Your task to perform on an android device: allow cookies in the chrome app Image 0: 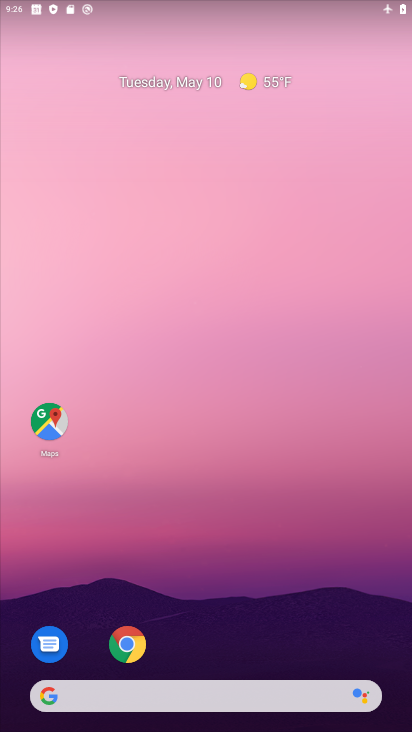
Step 0: drag from (280, 609) to (279, 109)
Your task to perform on an android device: allow cookies in the chrome app Image 1: 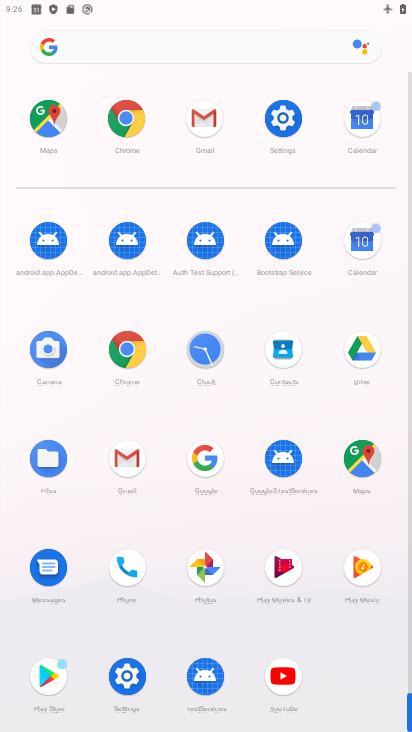
Step 1: click (130, 129)
Your task to perform on an android device: allow cookies in the chrome app Image 2: 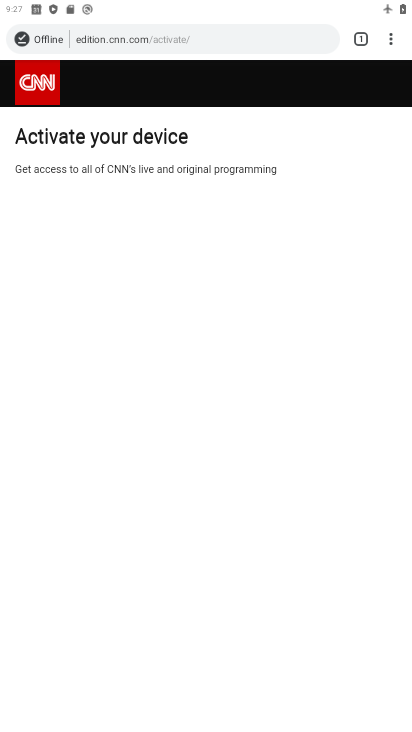
Step 2: click (398, 47)
Your task to perform on an android device: allow cookies in the chrome app Image 3: 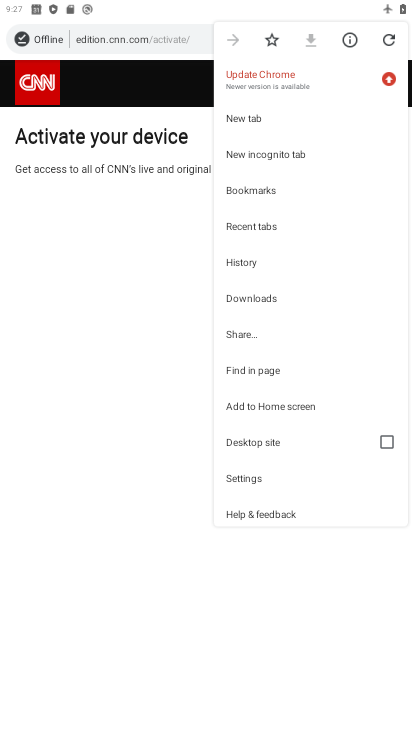
Step 3: drag from (275, 367) to (294, 184)
Your task to perform on an android device: allow cookies in the chrome app Image 4: 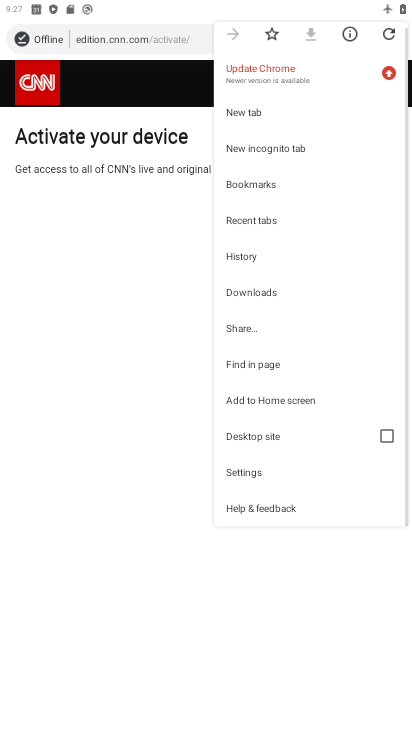
Step 4: click (282, 475)
Your task to perform on an android device: allow cookies in the chrome app Image 5: 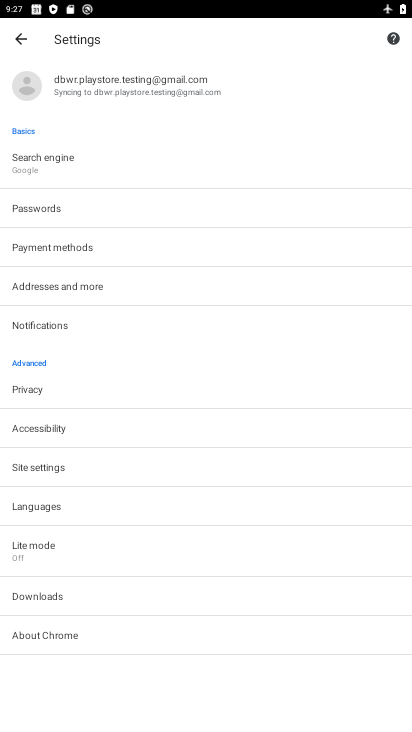
Step 5: click (64, 465)
Your task to perform on an android device: allow cookies in the chrome app Image 6: 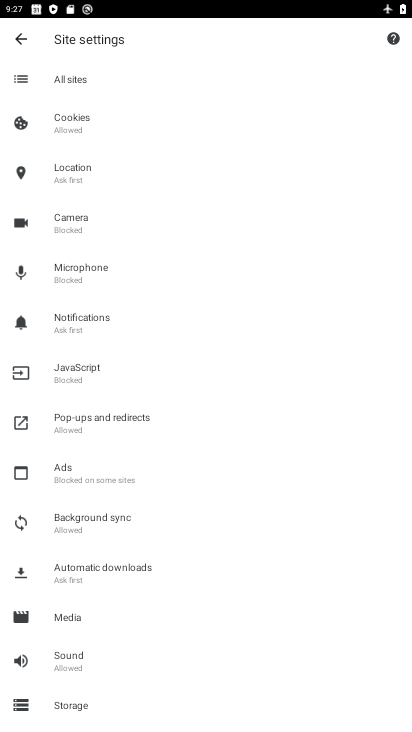
Step 6: click (138, 127)
Your task to perform on an android device: allow cookies in the chrome app Image 7: 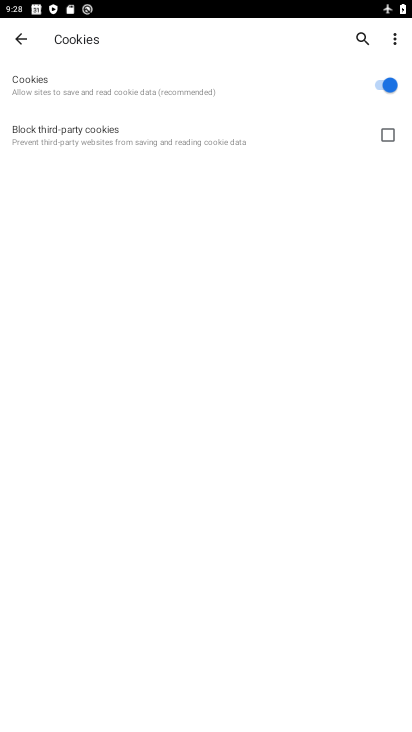
Step 7: task complete